Your task to perform on an android device: Check the best rated table lamp on Crate and Barrel Image 0: 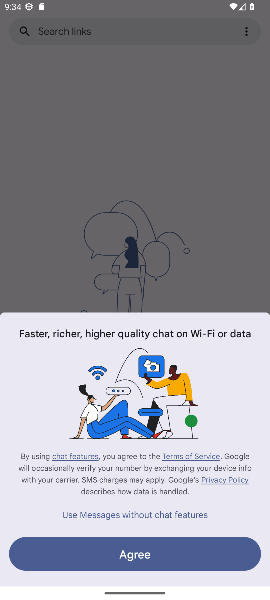
Step 0: click (183, 560)
Your task to perform on an android device: Check the best rated table lamp on Crate and Barrel Image 1: 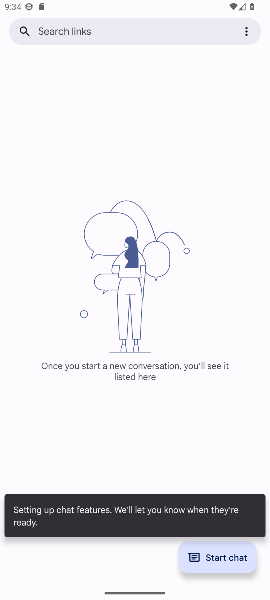
Step 1: click (123, 34)
Your task to perform on an android device: Check the best rated table lamp on Crate and Barrel Image 2: 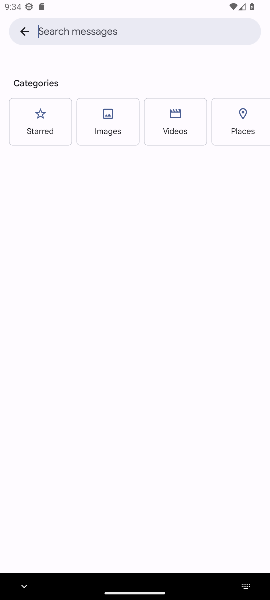
Step 2: type " Barrel"
Your task to perform on an android device: Check the best rated table lamp on Crate and Barrel Image 3: 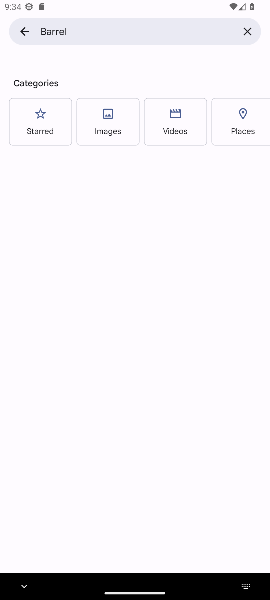
Step 3: click (51, 48)
Your task to perform on an android device: Check the best rated table lamp on Crate and Barrel Image 4: 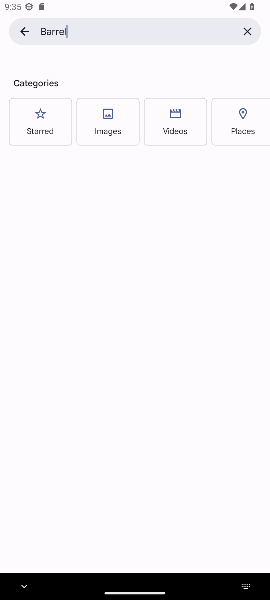
Step 4: task complete